Your task to perform on an android device: Go to Wikipedia Image 0: 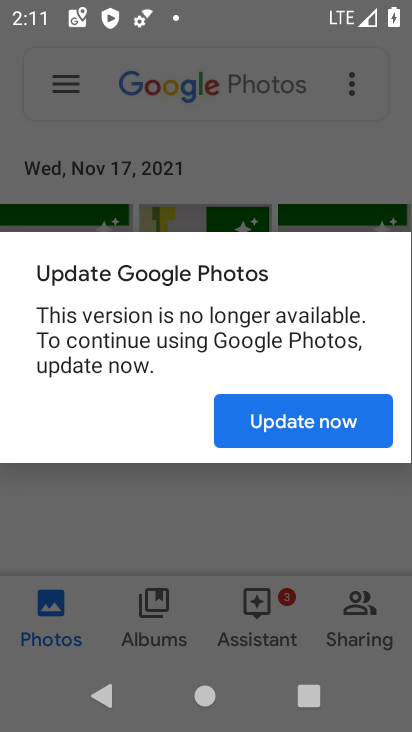
Step 0: press home button
Your task to perform on an android device: Go to Wikipedia Image 1: 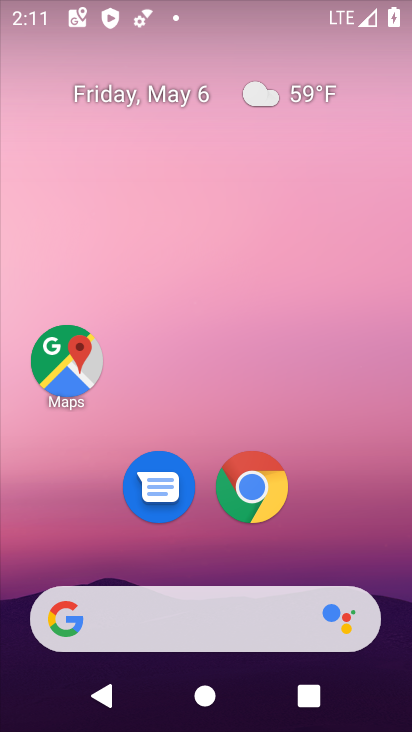
Step 1: drag from (268, 563) to (292, 159)
Your task to perform on an android device: Go to Wikipedia Image 2: 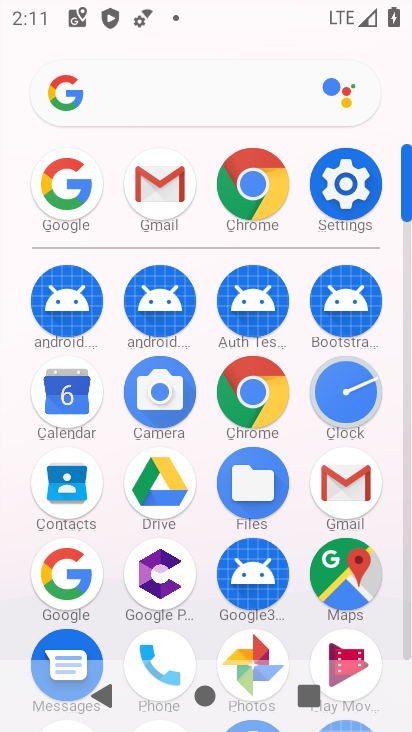
Step 2: click (272, 186)
Your task to perform on an android device: Go to Wikipedia Image 3: 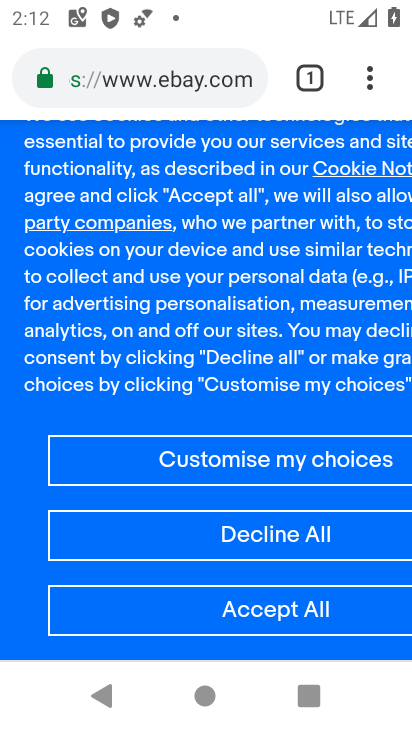
Step 3: click (214, 79)
Your task to perform on an android device: Go to Wikipedia Image 4: 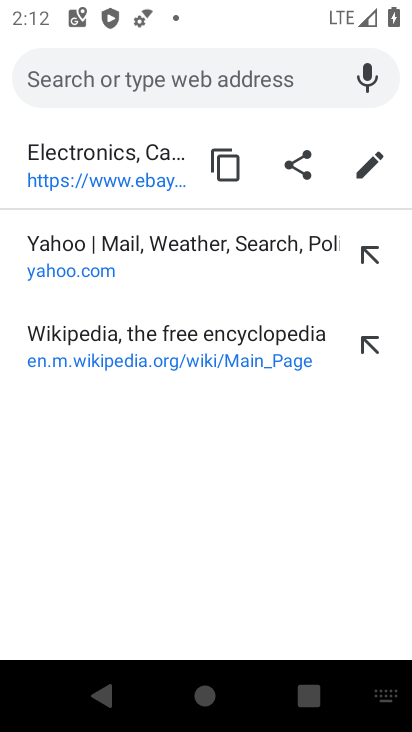
Step 4: click (166, 346)
Your task to perform on an android device: Go to Wikipedia Image 5: 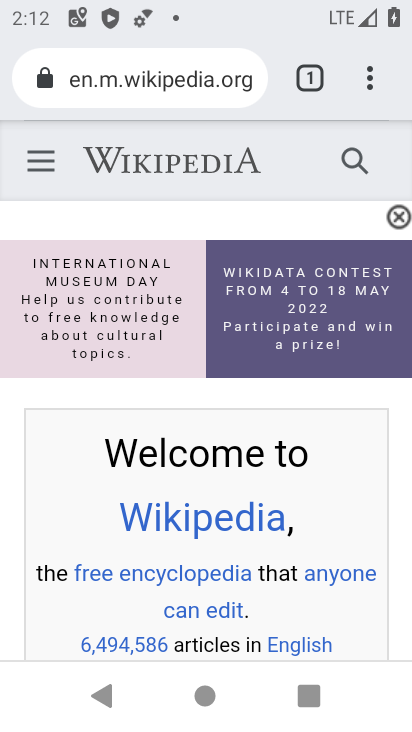
Step 5: task complete